Your task to perform on an android device: turn on data saver in the chrome app Image 0: 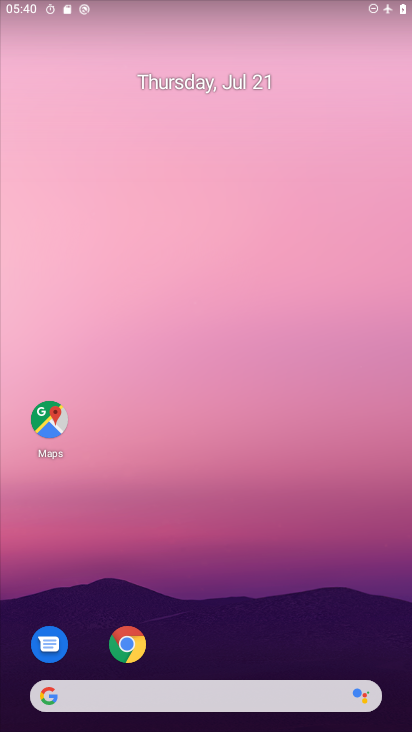
Step 0: click (127, 647)
Your task to perform on an android device: turn on data saver in the chrome app Image 1: 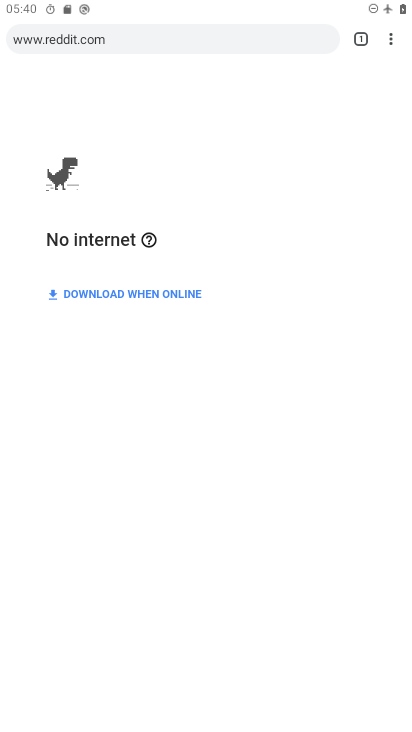
Step 1: click (390, 42)
Your task to perform on an android device: turn on data saver in the chrome app Image 2: 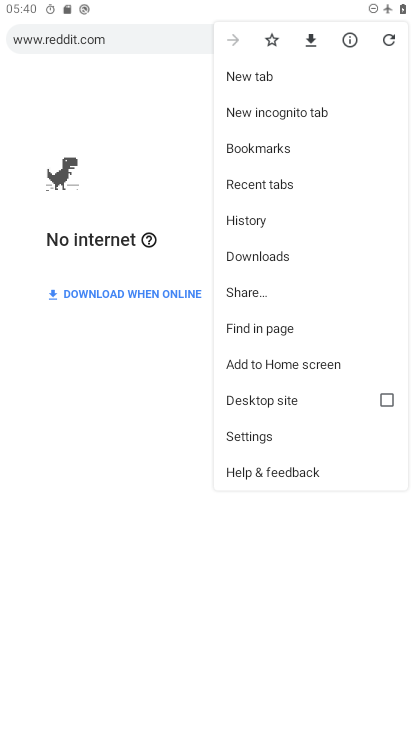
Step 2: click (258, 434)
Your task to perform on an android device: turn on data saver in the chrome app Image 3: 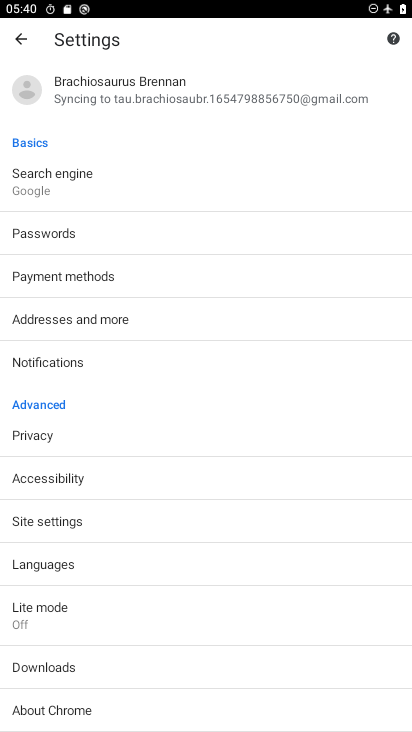
Step 3: click (31, 569)
Your task to perform on an android device: turn on data saver in the chrome app Image 4: 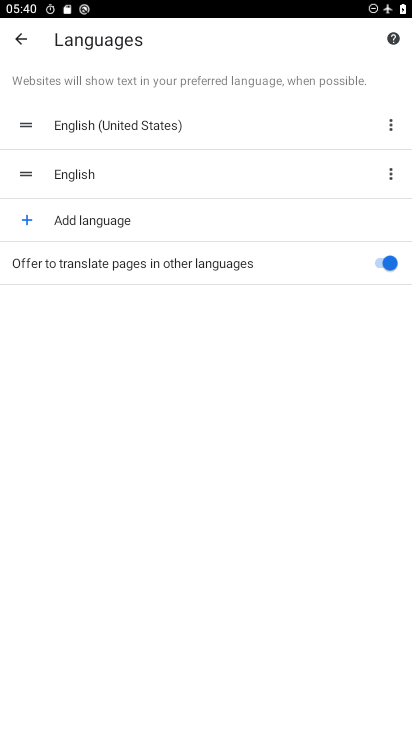
Step 4: press back button
Your task to perform on an android device: turn on data saver in the chrome app Image 5: 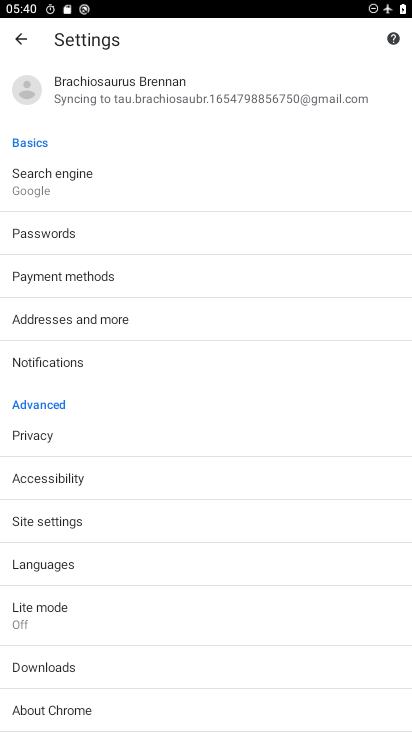
Step 5: click (49, 606)
Your task to perform on an android device: turn on data saver in the chrome app Image 6: 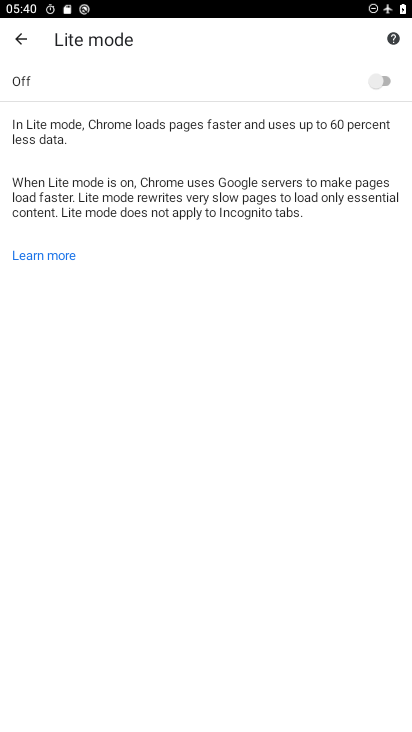
Step 6: task complete